Your task to perform on an android device: Check the news Image 0: 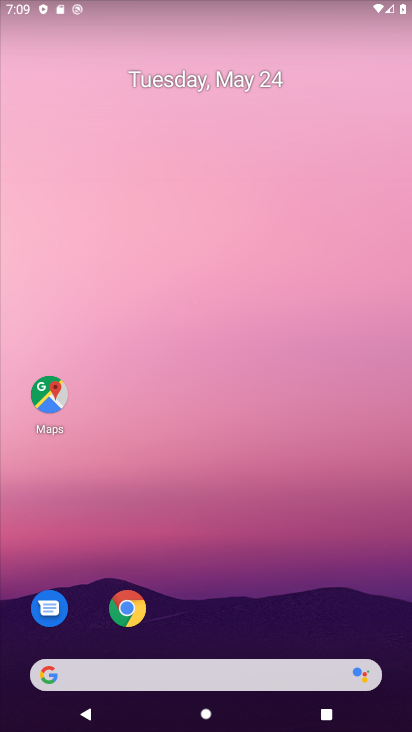
Step 0: drag from (263, 627) to (195, 232)
Your task to perform on an android device: Check the news Image 1: 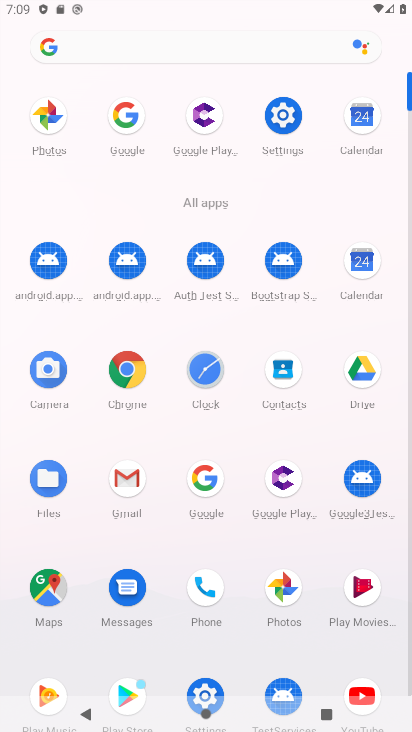
Step 1: click (126, 115)
Your task to perform on an android device: Check the news Image 2: 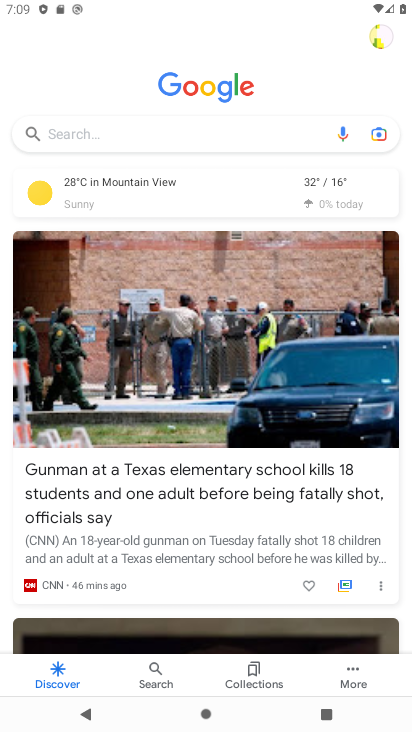
Step 2: click (128, 122)
Your task to perform on an android device: Check the news Image 3: 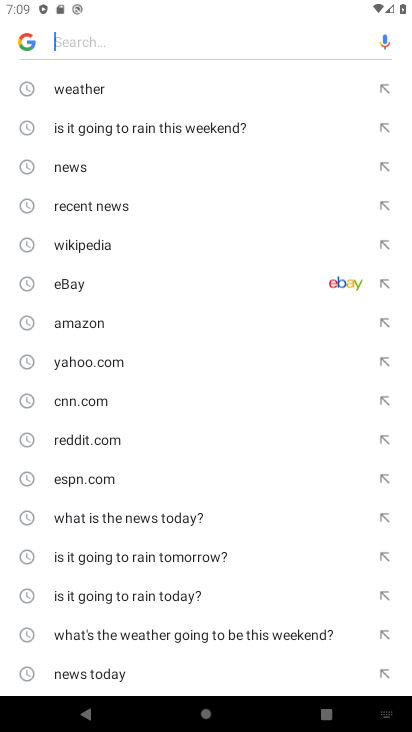
Step 3: type "news"
Your task to perform on an android device: Check the news Image 4: 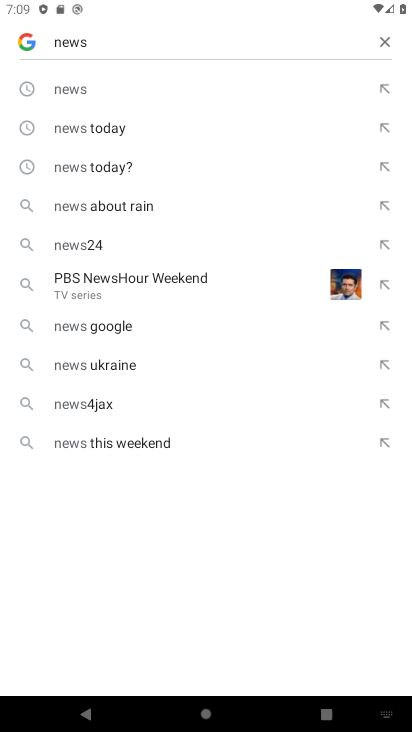
Step 4: click (64, 89)
Your task to perform on an android device: Check the news Image 5: 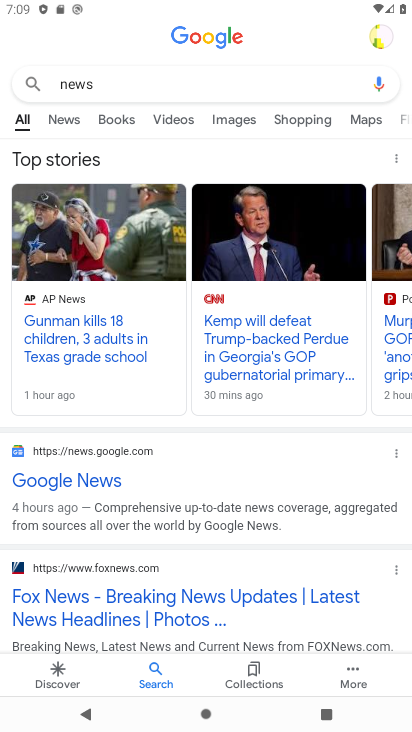
Step 5: task complete